Your task to perform on an android device: Go to Google maps Image 0: 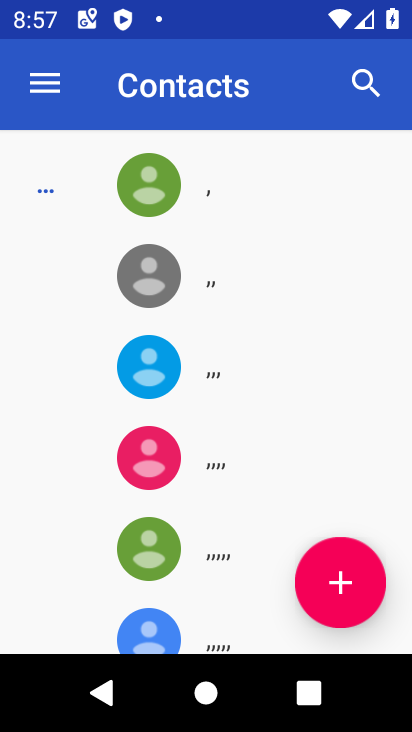
Step 0: press home button
Your task to perform on an android device: Go to Google maps Image 1: 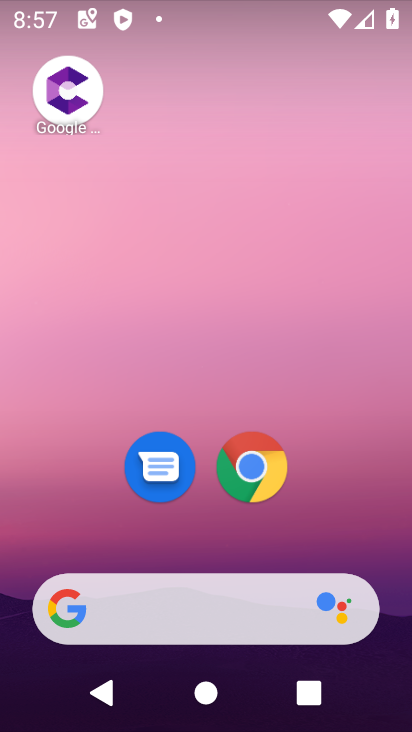
Step 1: drag from (192, 532) to (200, 220)
Your task to perform on an android device: Go to Google maps Image 2: 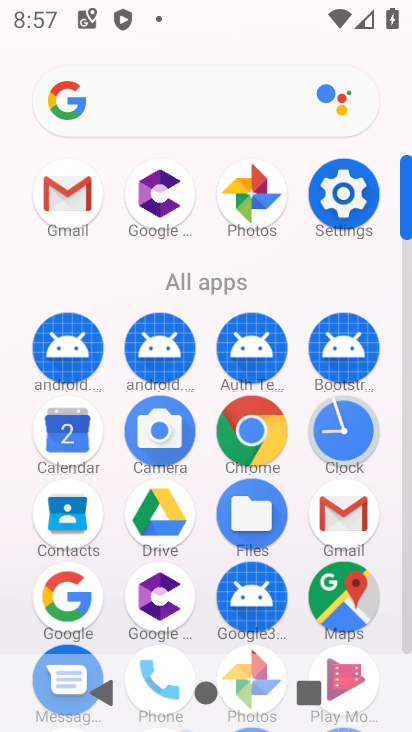
Step 2: click (348, 599)
Your task to perform on an android device: Go to Google maps Image 3: 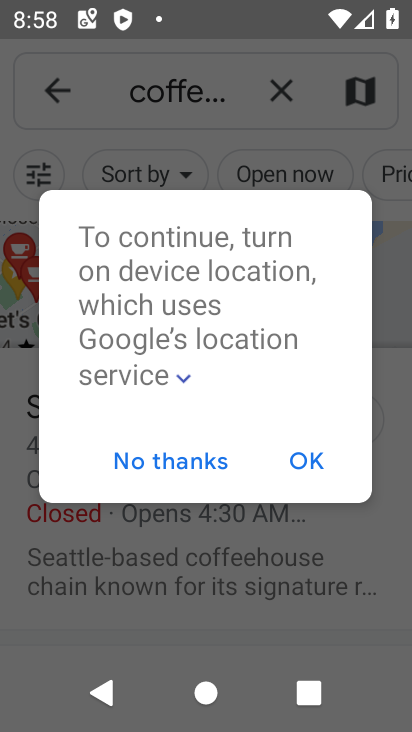
Step 3: click (302, 458)
Your task to perform on an android device: Go to Google maps Image 4: 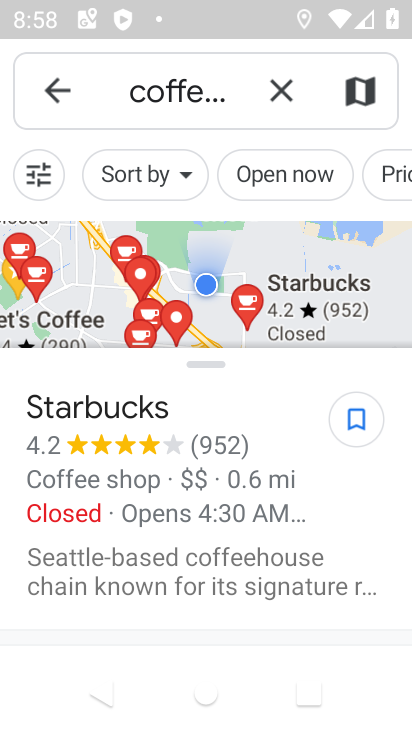
Step 4: task complete